Your task to perform on an android device: open app "Google Sheets" (install if not already installed) Image 0: 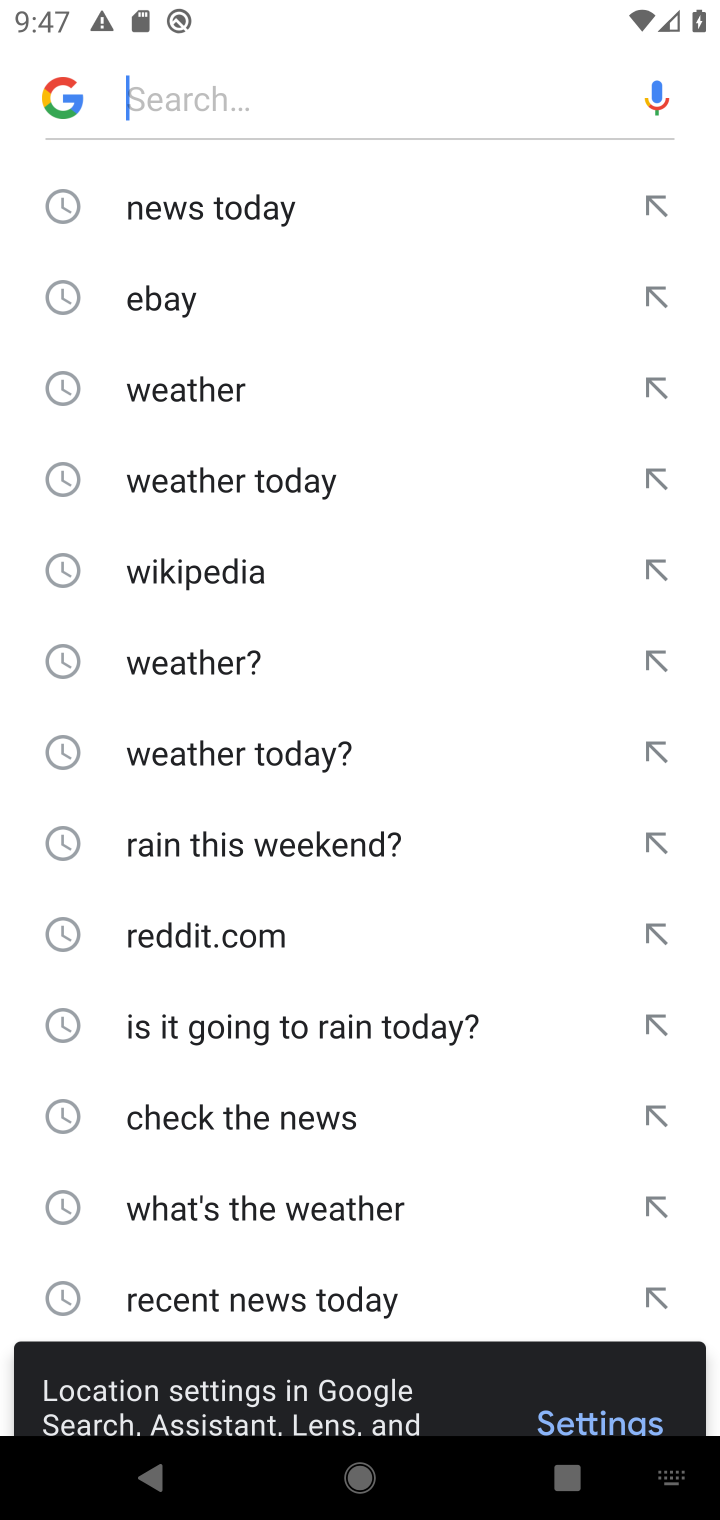
Step 0: press home button
Your task to perform on an android device: open app "Google Sheets" (install if not already installed) Image 1: 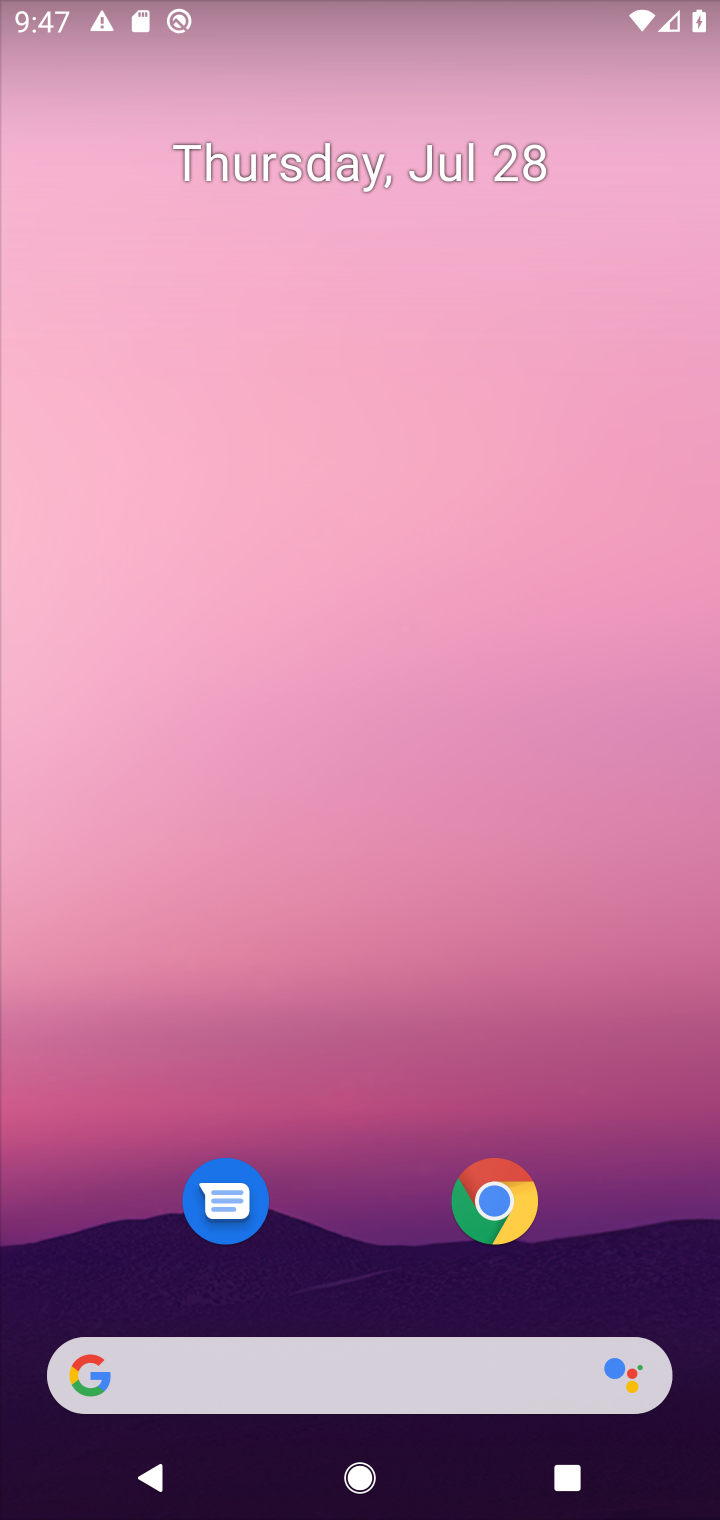
Step 1: drag from (334, 1296) to (154, 13)
Your task to perform on an android device: open app "Google Sheets" (install if not already installed) Image 2: 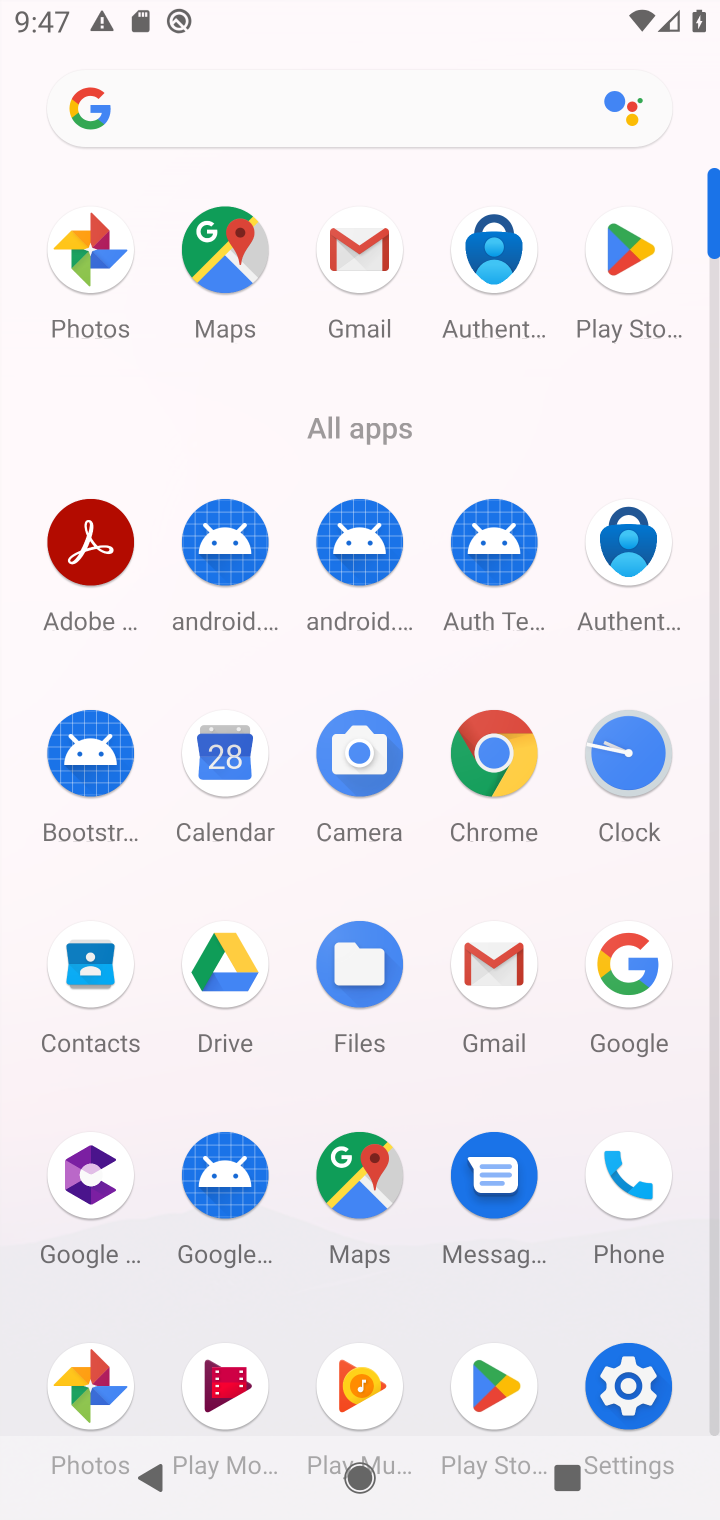
Step 2: click (495, 1376)
Your task to perform on an android device: open app "Google Sheets" (install if not already installed) Image 3: 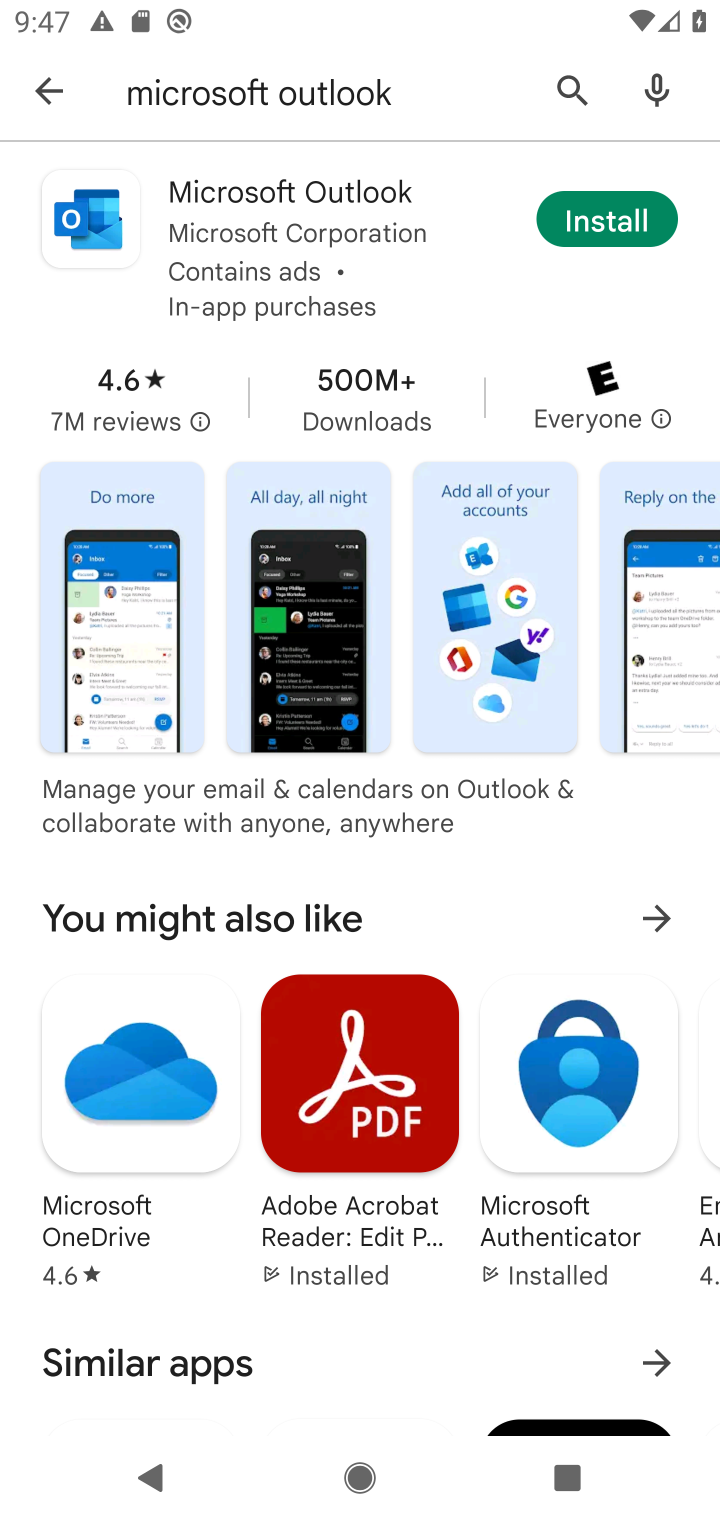
Step 3: click (318, 87)
Your task to perform on an android device: open app "Google Sheets" (install if not already installed) Image 4: 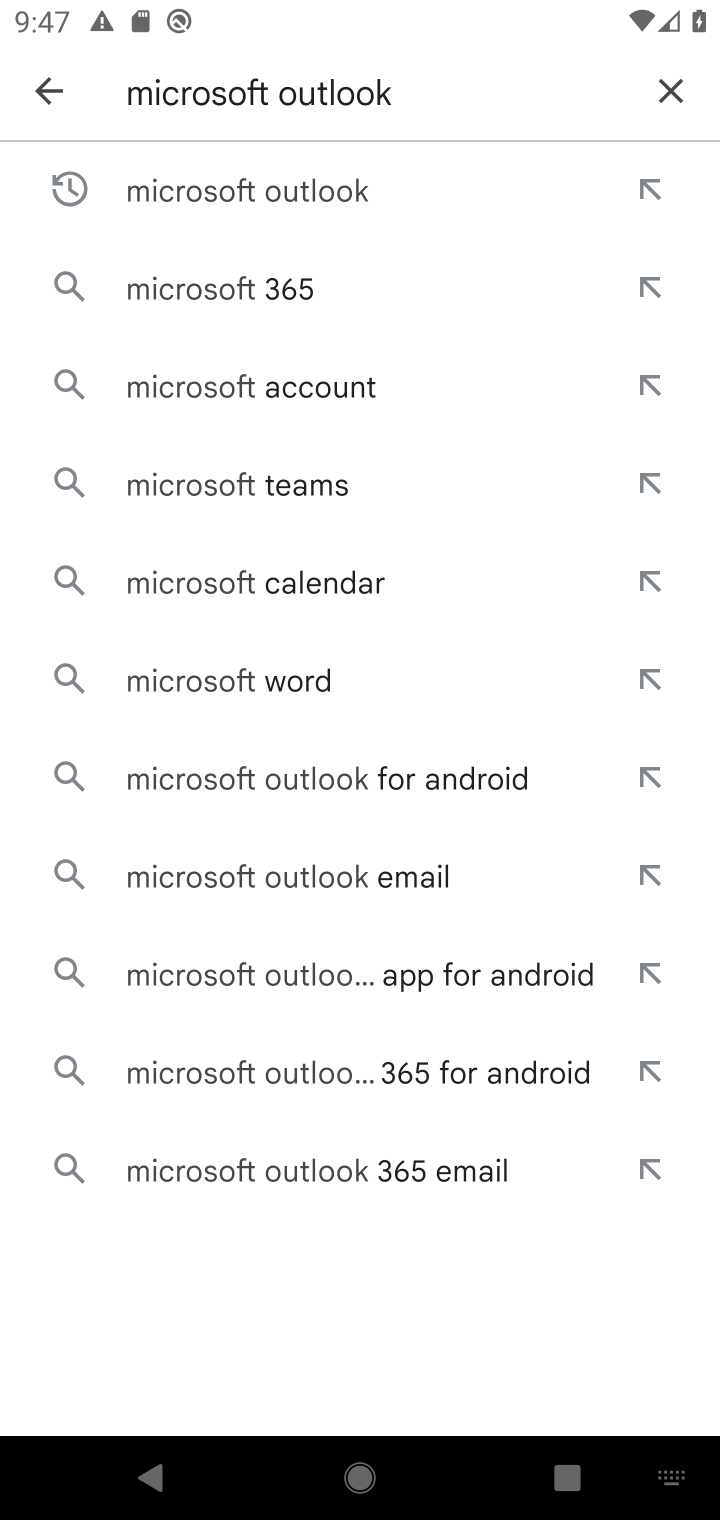
Step 4: click (669, 91)
Your task to perform on an android device: open app "Google Sheets" (install if not already installed) Image 5: 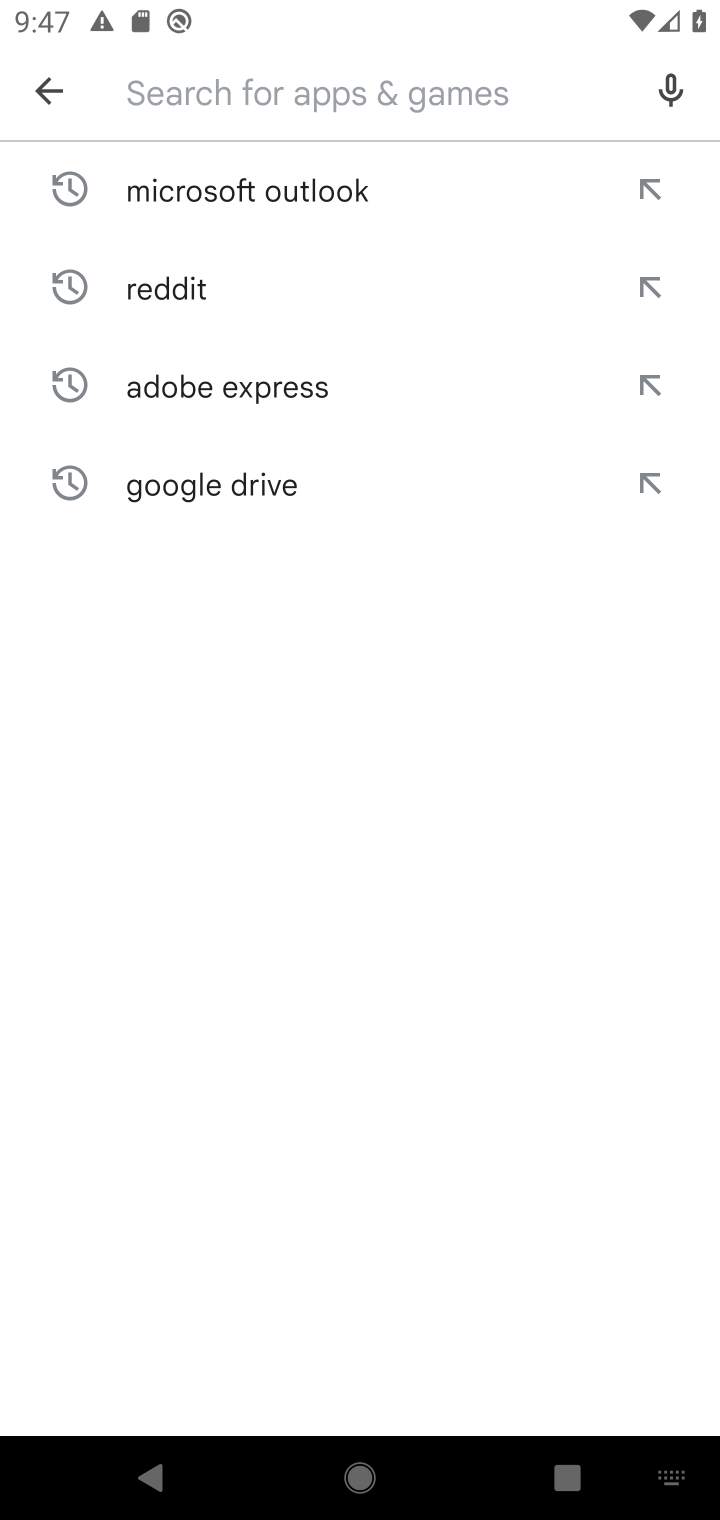
Step 5: type "google sheets"
Your task to perform on an android device: open app "Google Sheets" (install if not already installed) Image 6: 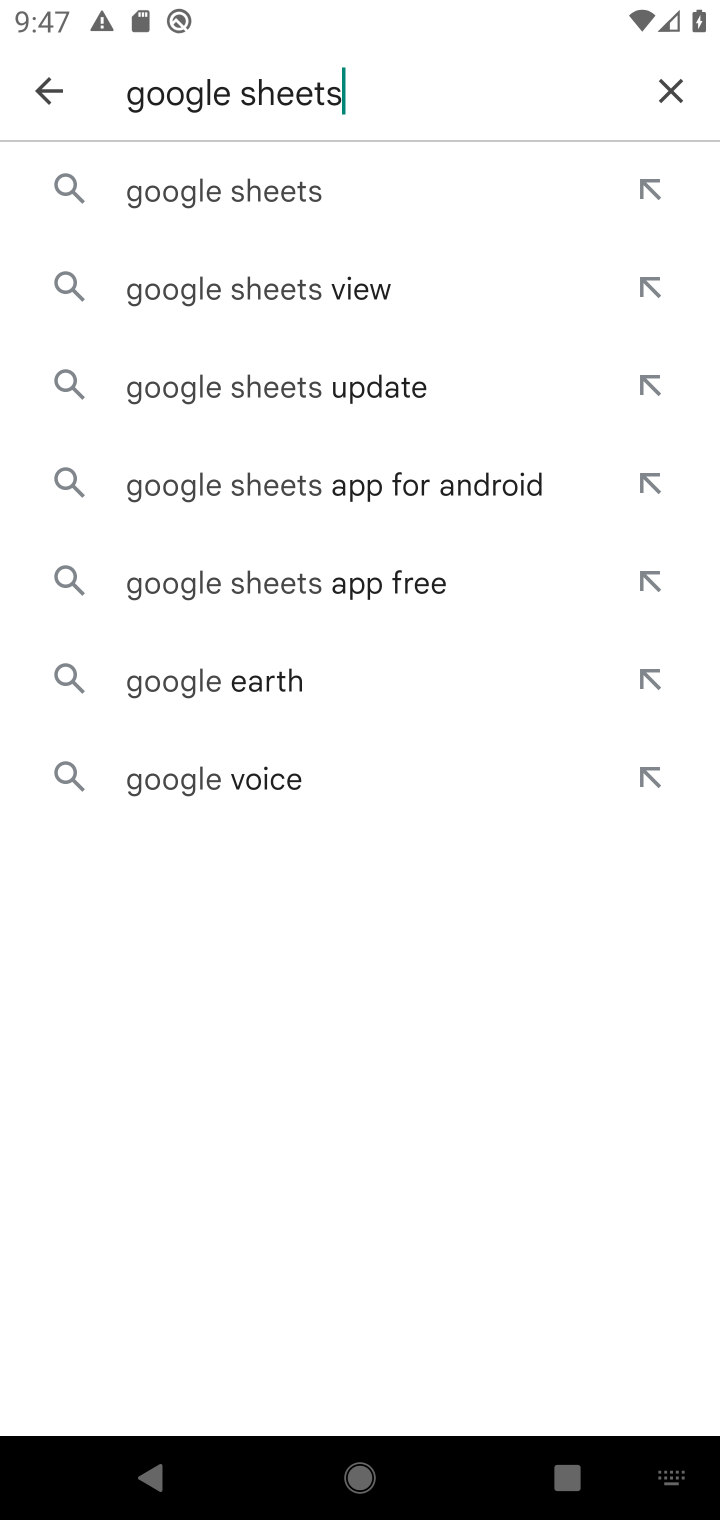
Step 6: click (240, 101)
Your task to perform on an android device: open app "Google Sheets" (install if not already installed) Image 7: 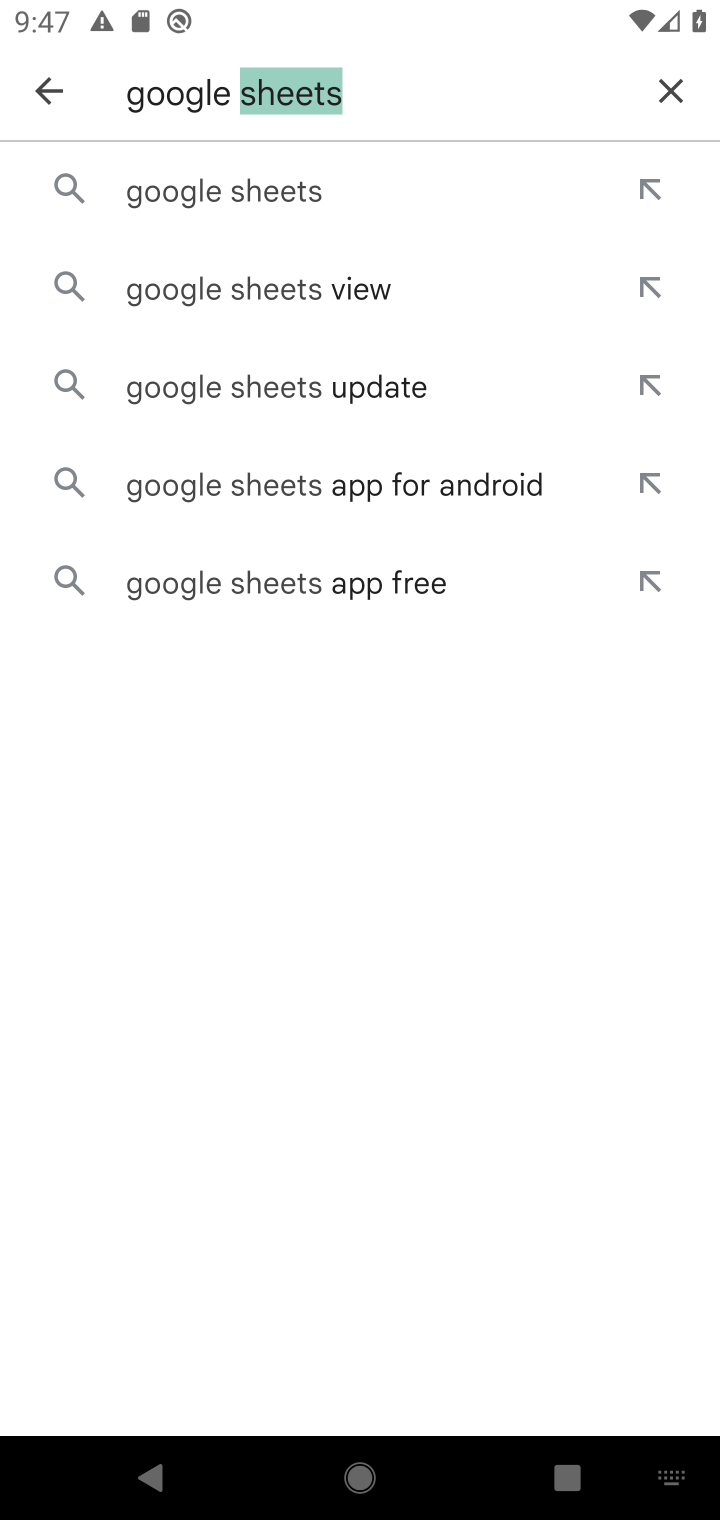
Step 7: click (288, 223)
Your task to perform on an android device: open app "Google Sheets" (install if not already installed) Image 8: 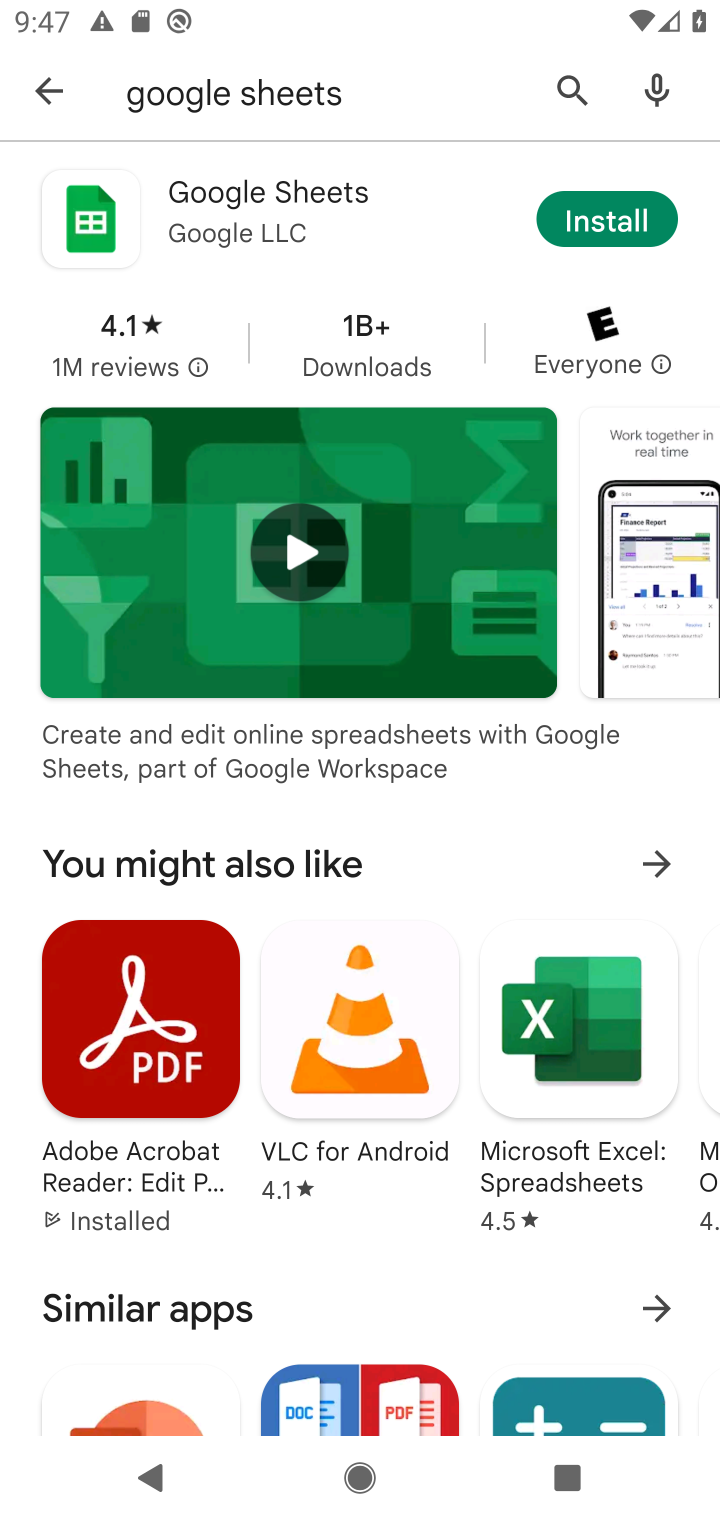
Step 8: click (602, 208)
Your task to perform on an android device: open app "Google Sheets" (install if not already installed) Image 9: 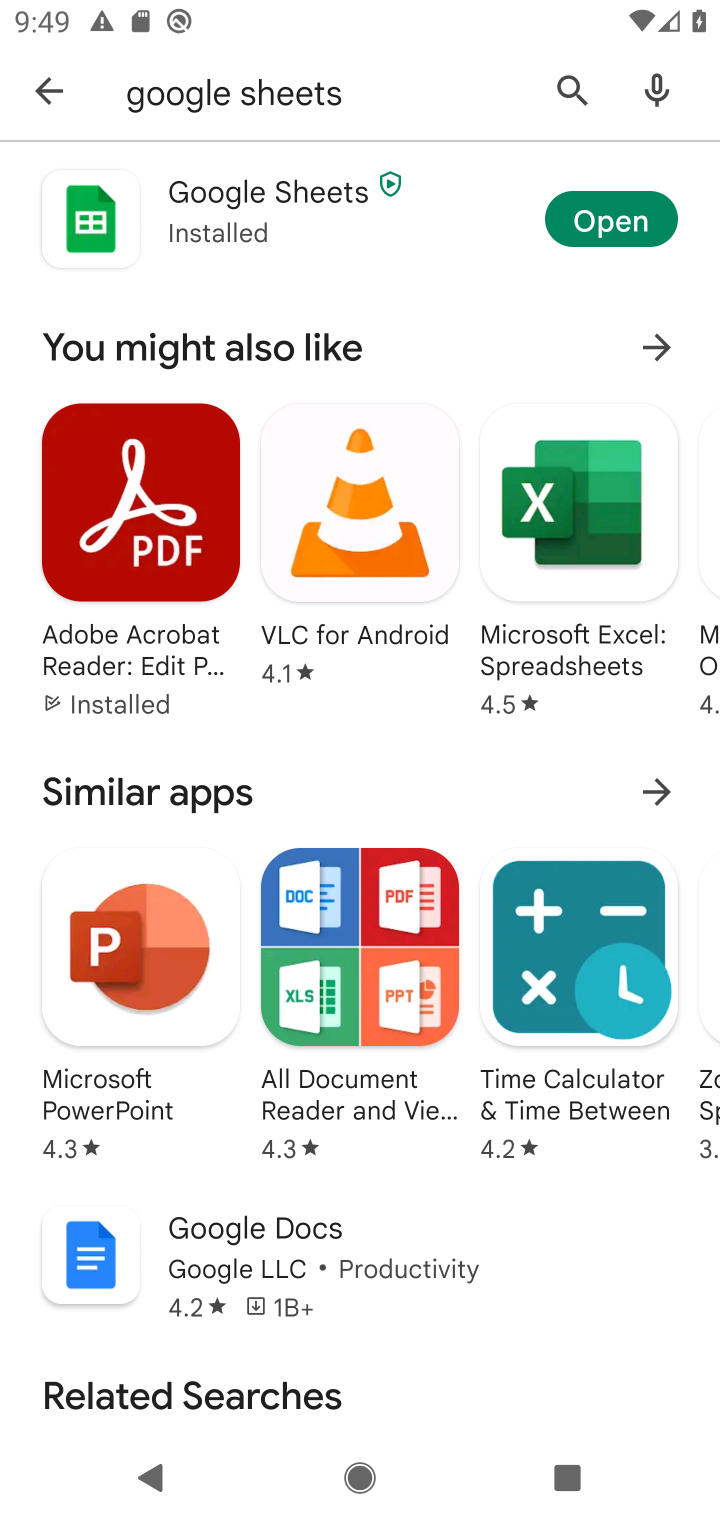
Step 9: click (579, 214)
Your task to perform on an android device: open app "Google Sheets" (install if not already installed) Image 10: 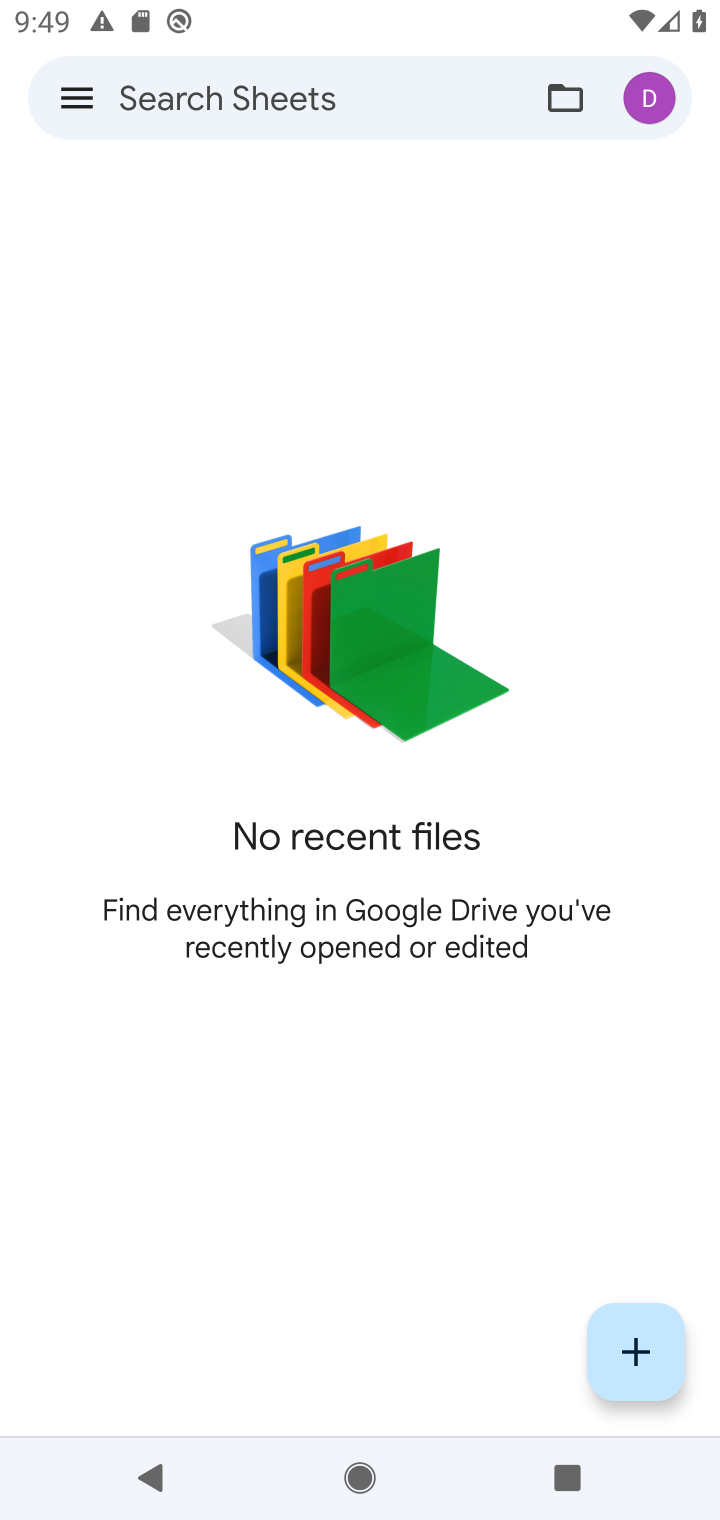
Step 10: task complete